Your task to perform on an android device: all mails in gmail Image 0: 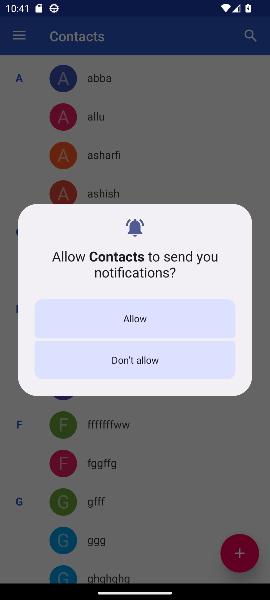
Step 0: press home button
Your task to perform on an android device: all mails in gmail Image 1: 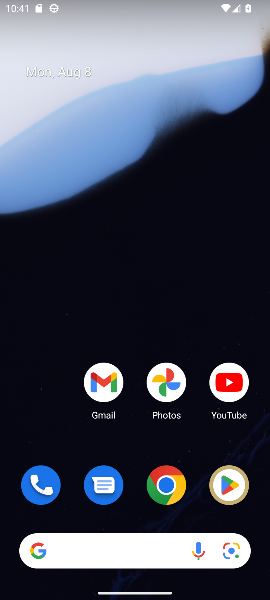
Step 1: click (110, 372)
Your task to perform on an android device: all mails in gmail Image 2: 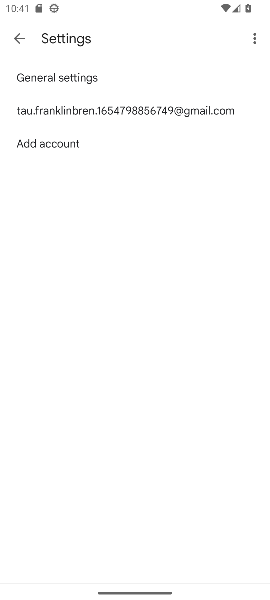
Step 2: click (18, 34)
Your task to perform on an android device: all mails in gmail Image 3: 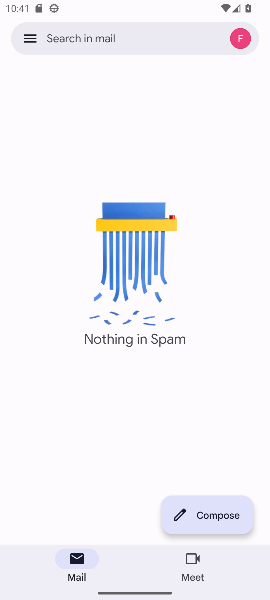
Step 3: click (38, 43)
Your task to perform on an android device: all mails in gmail Image 4: 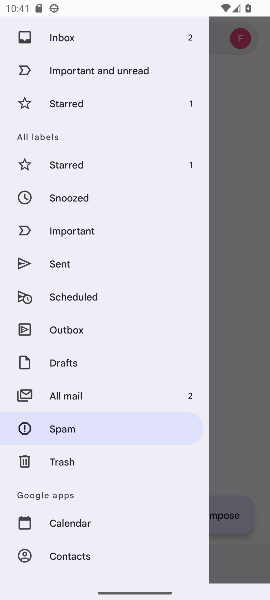
Step 4: click (98, 107)
Your task to perform on an android device: all mails in gmail Image 5: 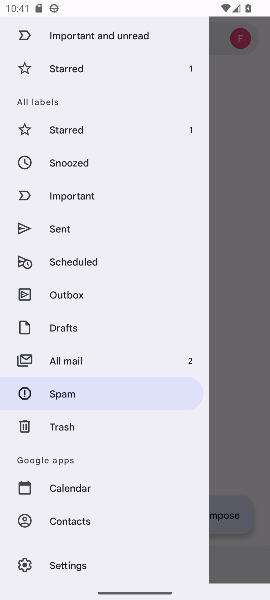
Step 5: click (59, 359)
Your task to perform on an android device: all mails in gmail Image 6: 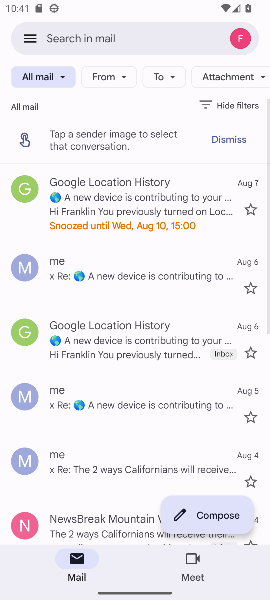
Step 6: task complete